Your task to perform on an android device: open chrome privacy settings Image 0: 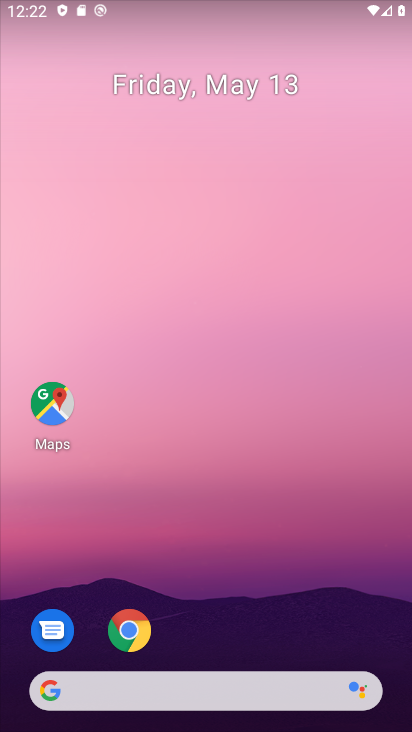
Step 0: drag from (243, 717) to (219, 404)
Your task to perform on an android device: open chrome privacy settings Image 1: 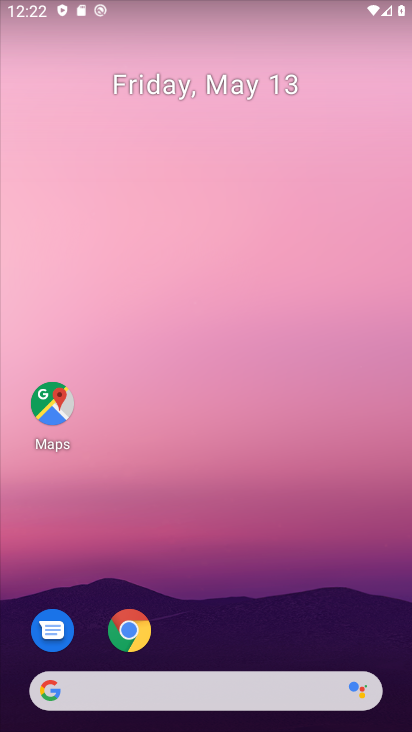
Step 1: drag from (227, 698) to (290, 44)
Your task to perform on an android device: open chrome privacy settings Image 2: 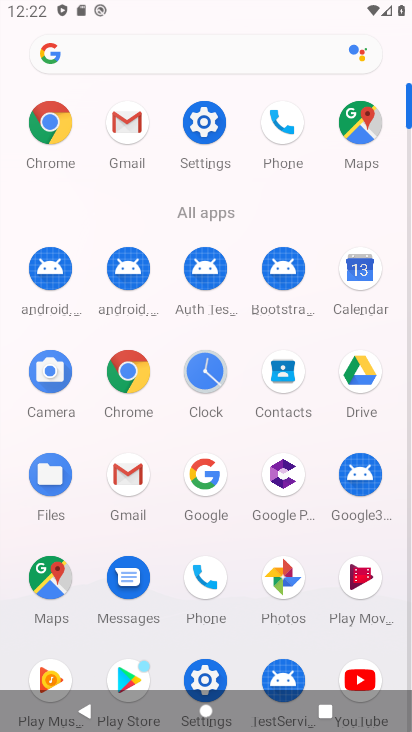
Step 2: click (50, 128)
Your task to perform on an android device: open chrome privacy settings Image 3: 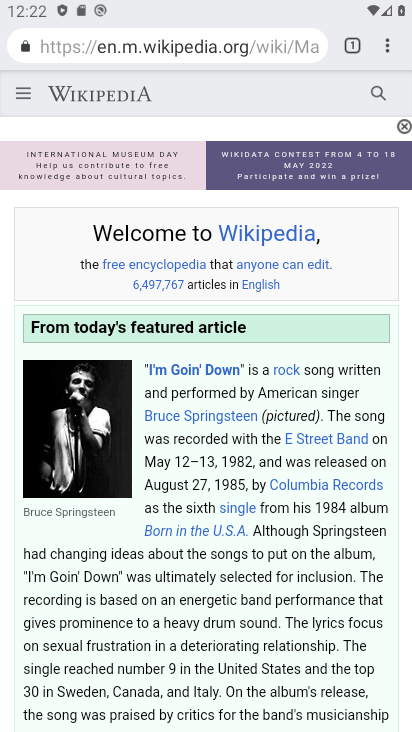
Step 3: click (378, 50)
Your task to perform on an android device: open chrome privacy settings Image 4: 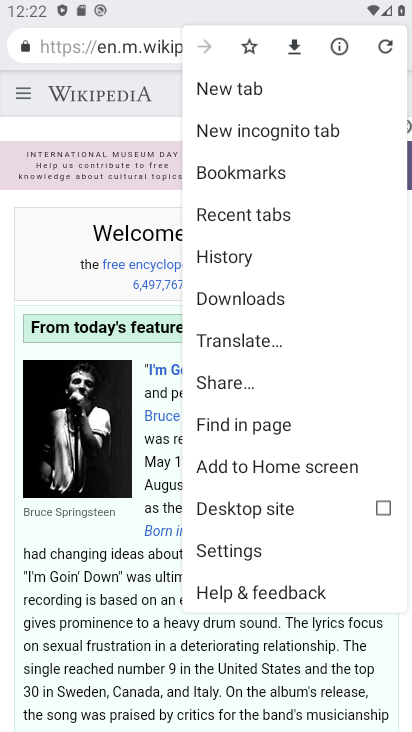
Step 4: click (209, 547)
Your task to perform on an android device: open chrome privacy settings Image 5: 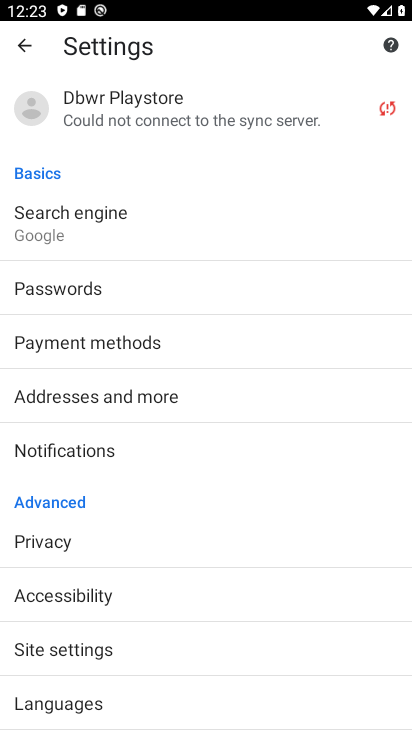
Step 5: click (70, 536)
Your task to perform on an android device: open chrome privacy settings Image 6: 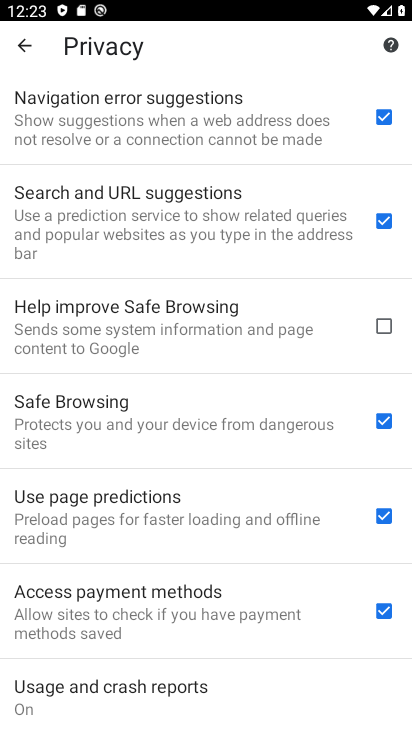
Step 6: task complete